Your task to perform on an android device: toggle airplane mode Image 0: 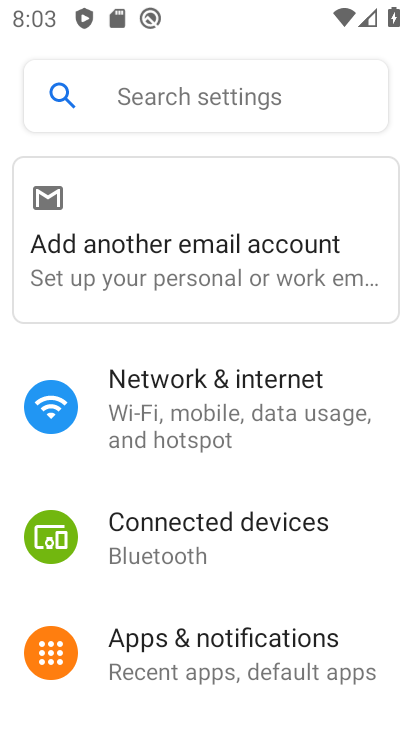
Step 0: click (250, 465)
Your task to perform on an android device: toggle airplane mode Image 1: 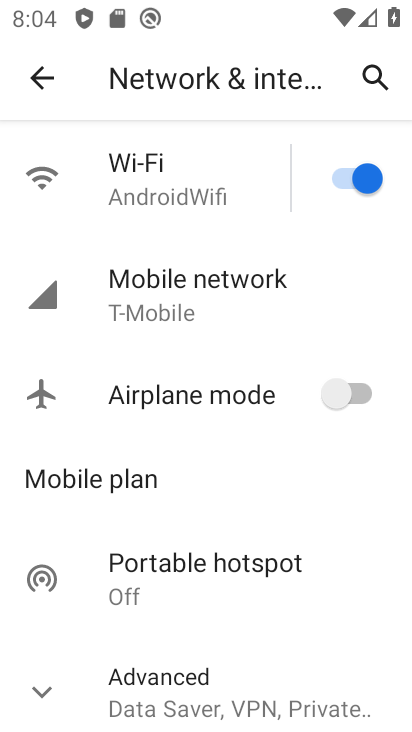
Step 1: click (236, 410)
Your task to perform on an android device: toggle airplane mode Image 2: 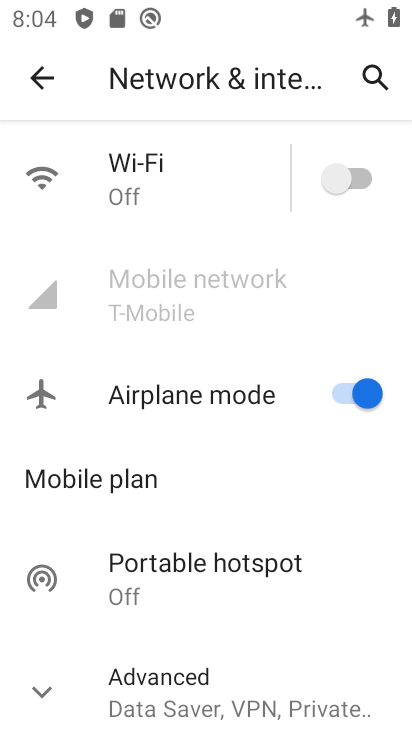
Step 2: task complete